Your task to perform on an android device: toggle wifi Image 0: 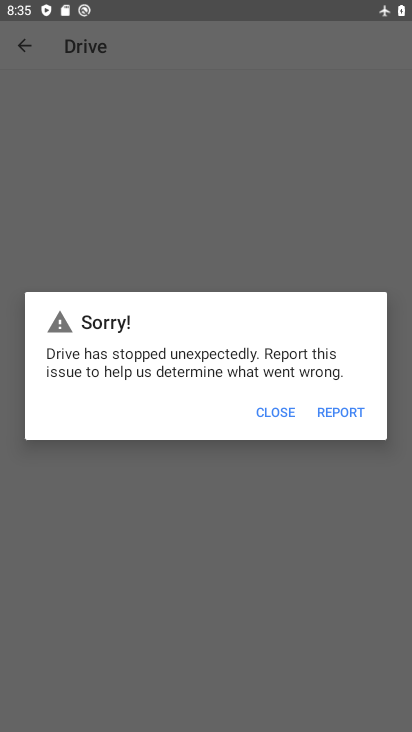
Step 0: press home button
Your task to perform on an android device: toggle wifi Image 1: 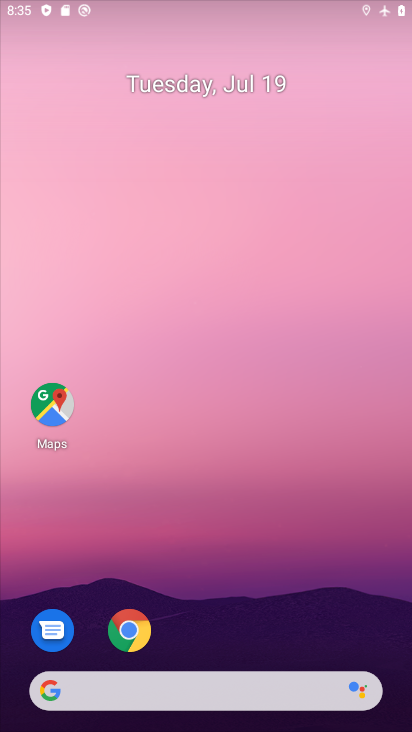
Step 1: drag from (188, 640) to (176, 113)
Your task to perform on an android device: toggle wifi Image 2: 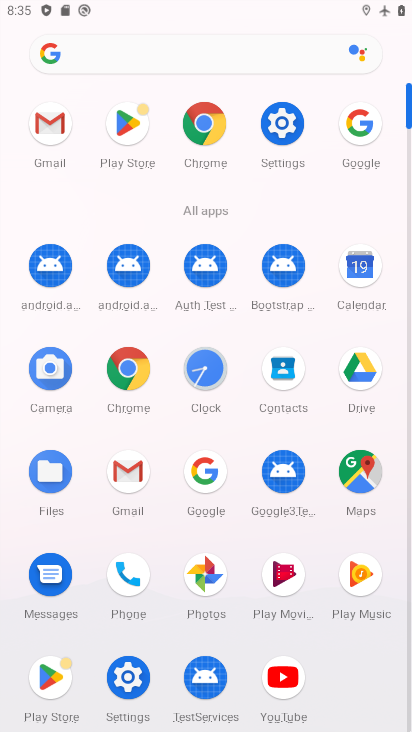
Step 2: click (280, 121)
Your task to perform on an android device: toggle wifi Image 3: 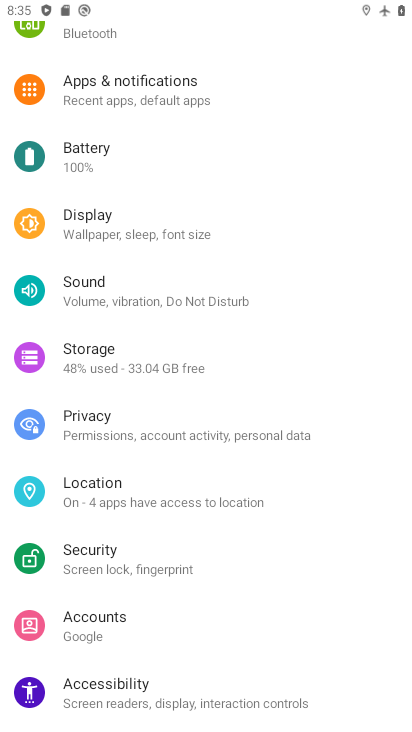
Step 3: drag from (73, 64) to (256, 387)
Your task to perform on an android device: toggle wifi Image 4: 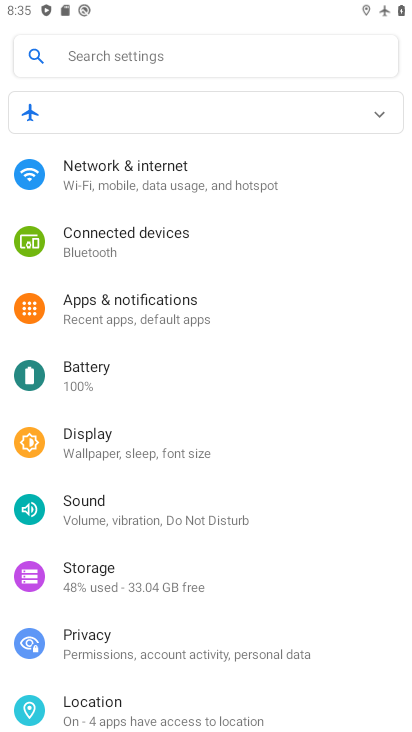
Step 4: click (105, 172)
Your task to perform on an android device: toggle wifi Image 5: 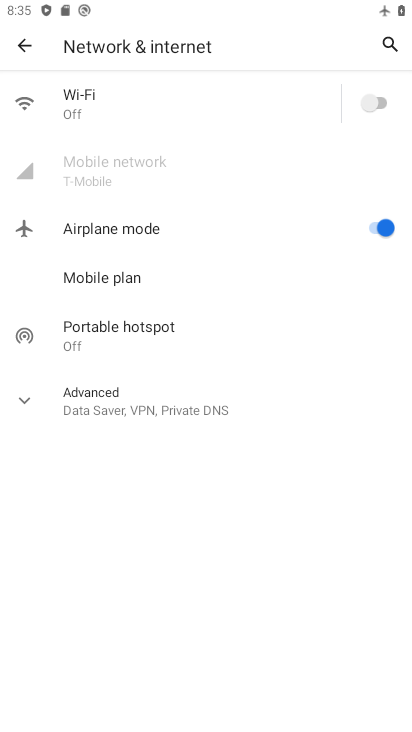
Step 5: click (375, 98)
Your task to perform on an android device: toggle wifi Image 6: 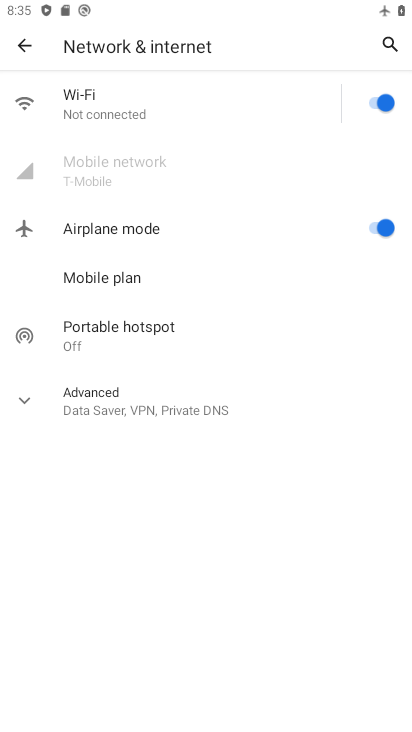
Step 6: task complete